Your task to perform on an android device: turn off javascript in the chrome app Image 0: 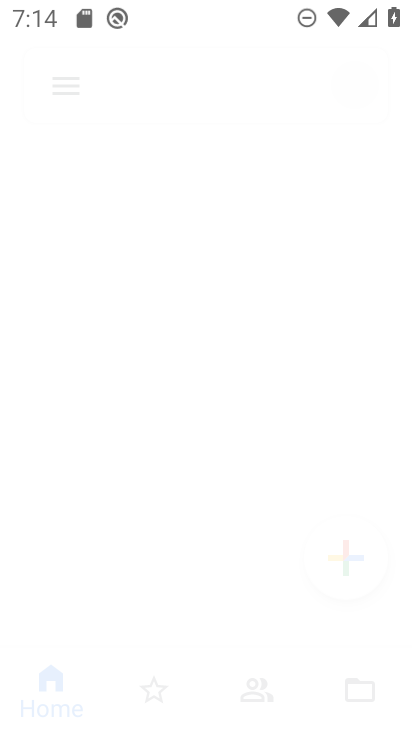
Step 0: drag from (353, 535) to (187, 62)
Your task to perform on an android device: turn off javascript in the chrome app Image 1: 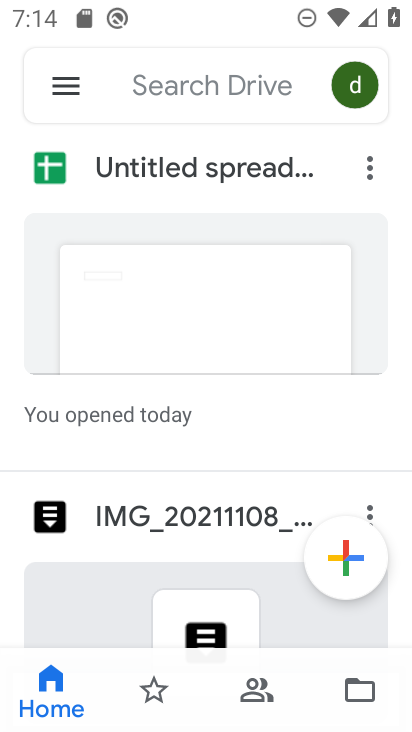
Step 1: press home button
Your task to perform on an android device: turn off javascript in the chrome app Image 2: 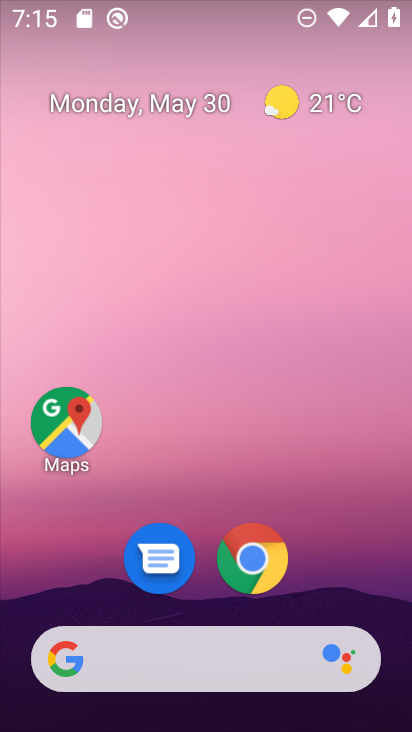
Step 2: click (256, 555)
Your task to perform on an android device: turn off javascript in the chrome app Image 3: 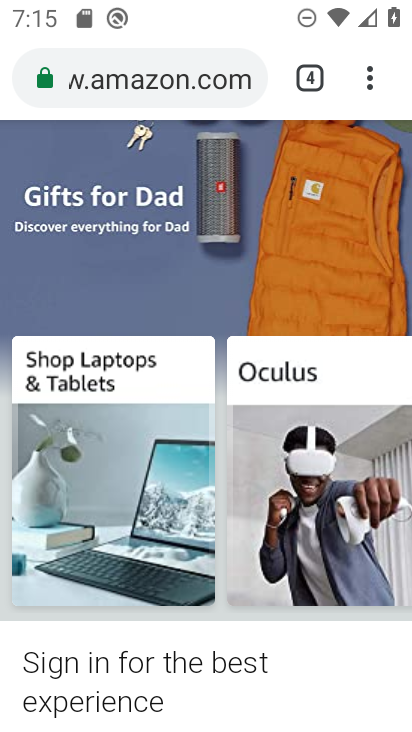
Step 3: click (370, 82)
Your task to perform on an android device: turn off javascript in the chrome app Image 4: 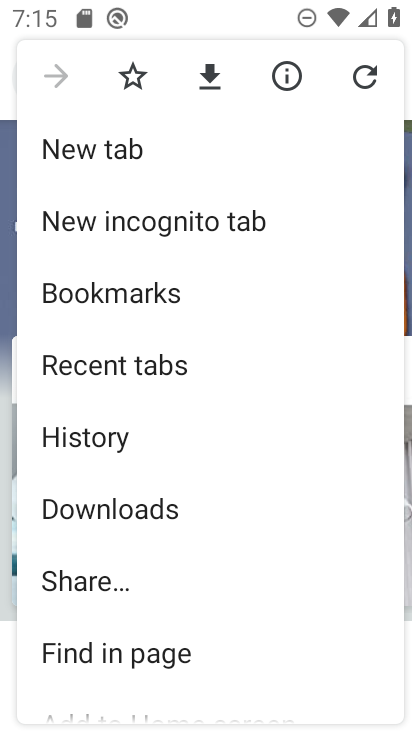
Step 4: drag from (221, 612) to (160, 251)
Your task to perform on an android device: turn off javascript in the chrome app Image 5: 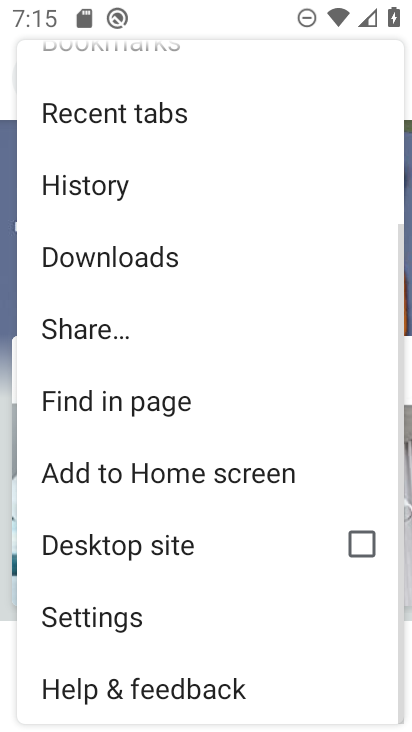
Step 5: click (111, 606)
Your task to perform on an android device: turn off javascript in the chrome app Image 6: 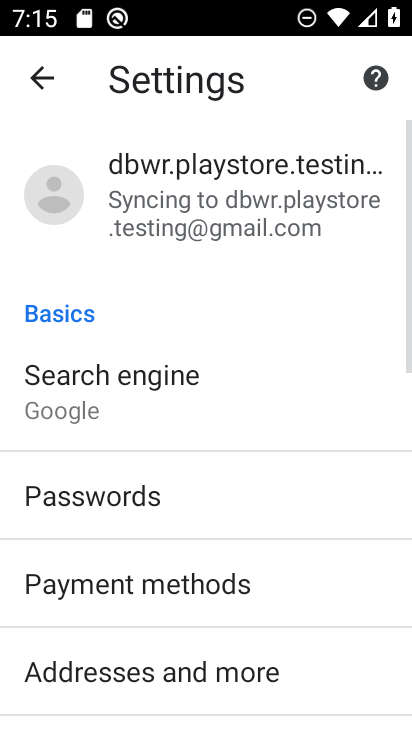
Step 6: drag from (276, 548) to (224, 160)
Your task to perform on an android device: turn off javascript in the chrome app Image 7: 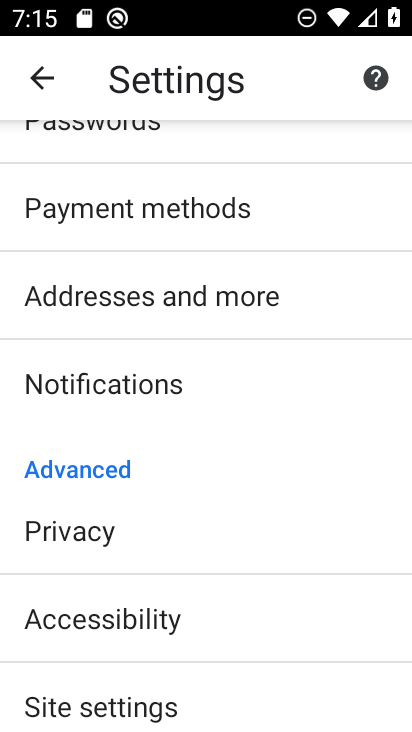
Step 7: drag from (260, 568) to (219, 237)
Your task to perform on an android device: turn off javascript in the chrome app Image 8: 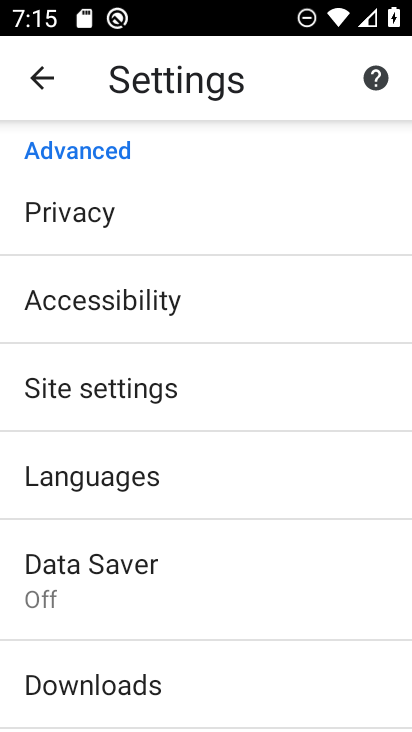
Step 8: click (109, 390)
Your task to perform on an android device: turn off javascript in the chrome app Image 9: 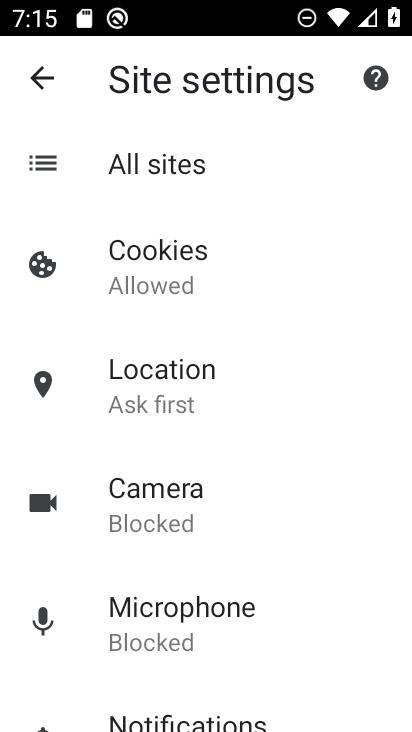
Step 9: drag from (323, 638) to (265, 212)
Your task to perform on an android device: turn off javascript in the chrome app Image 10: 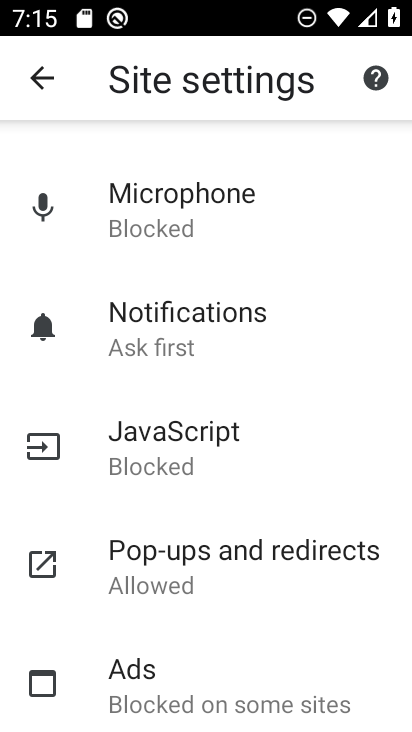
Step 10: click (176, 446)
Your task to perform on an android device: turn off javascript in the chrome app Image 11: 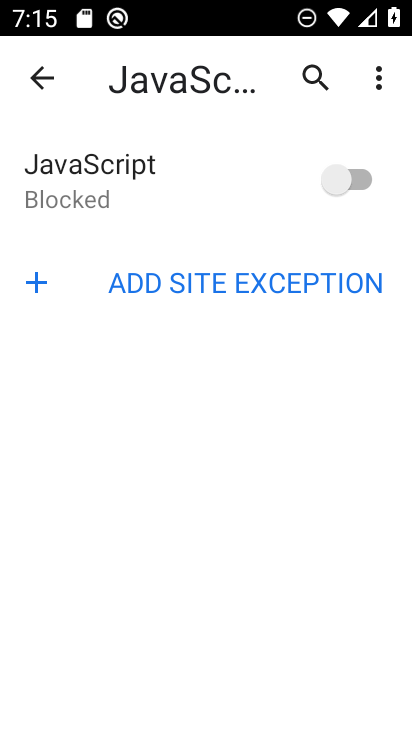
Step 11: task complete